Your task to perform on an android device: check storage Image 0: 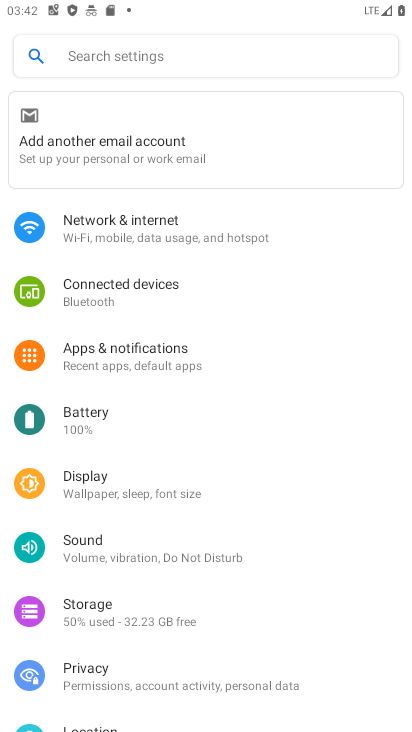
Step 0: click (170, 610)
Your task to perform on an android device: check storage Image 1: 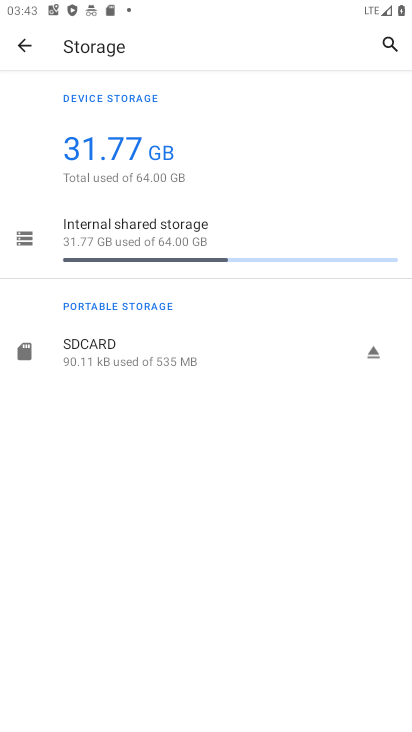
Step 1: task complete